Your task to perform on an android device: turn on the 12-hour format for clock Image 0: 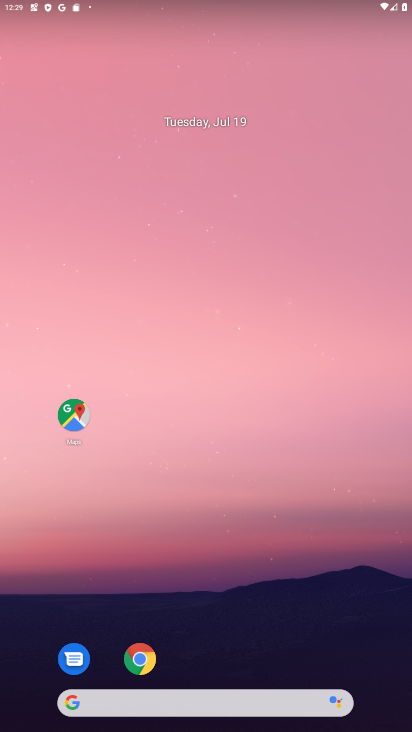
Step 0: drag from (176, 711) to (173, 222)
Your task to perform on an android device: turn on the 12-hour format for clock Image 1: 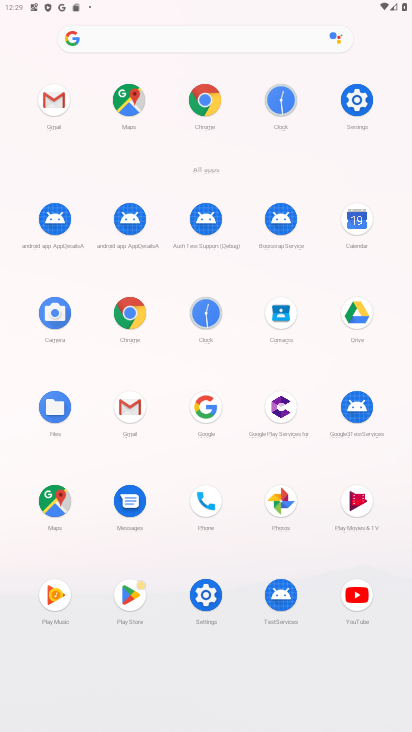
Step 1: click (282, 100)
Your task to perform on an android device: turn on the 12-hour format for clock Image 2: 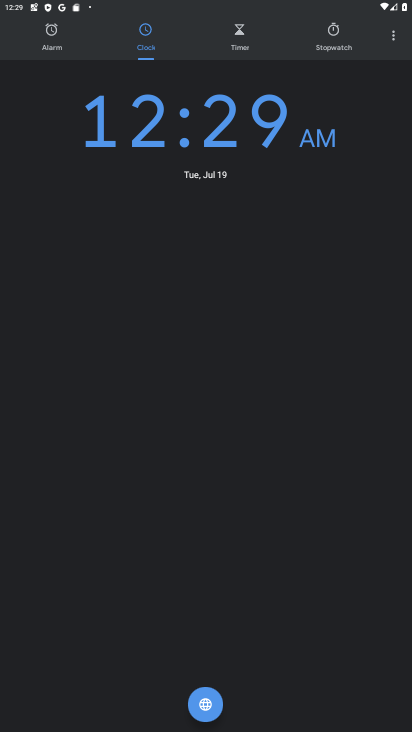
Step 2: click (395, 36)
Your task to perform on an android device: turn on the 12-hour format for clock Image 3: 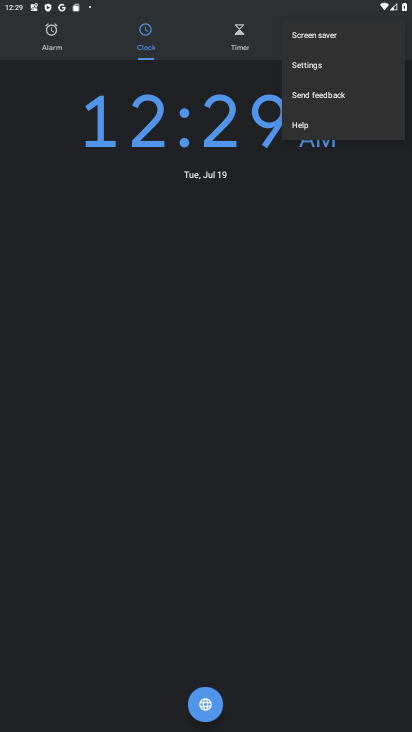
Step 3: click (312, 67)
Your task to perform on an android device: turn on the 12-hour format for clock Image 4: 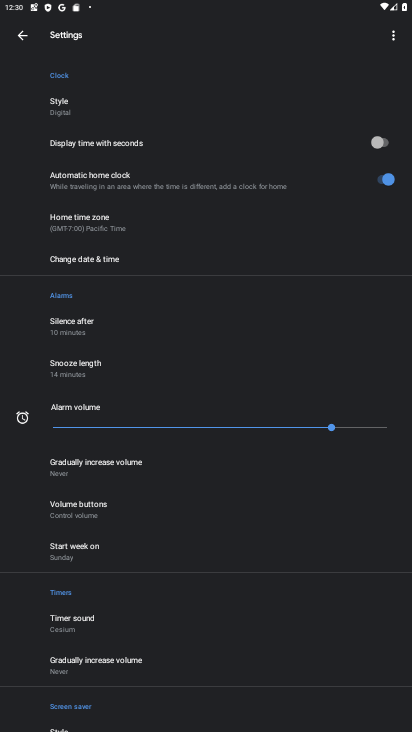
Step 4: click (104, 259)
Your task to perform on an android device: turn on the 12-hour format for clock Image 5: 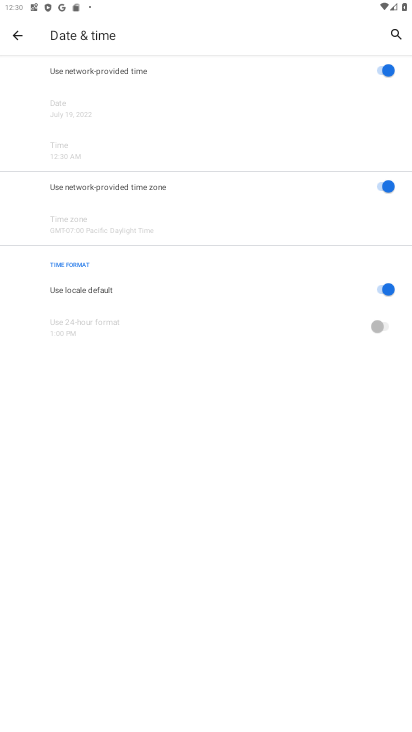
Step 5: task complete